Your task to perform on an android device: Go to Reddit.com Image 0: 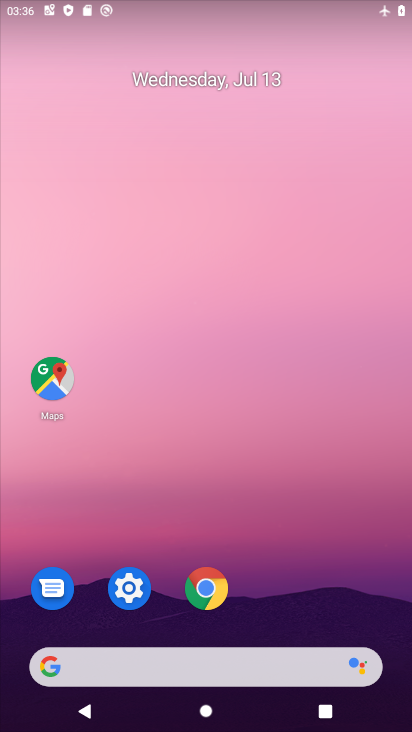
Step 0: drag from (274, 648) to (243, 230)
Your task to perform on an android device: Go to Reddit.com Image 1: 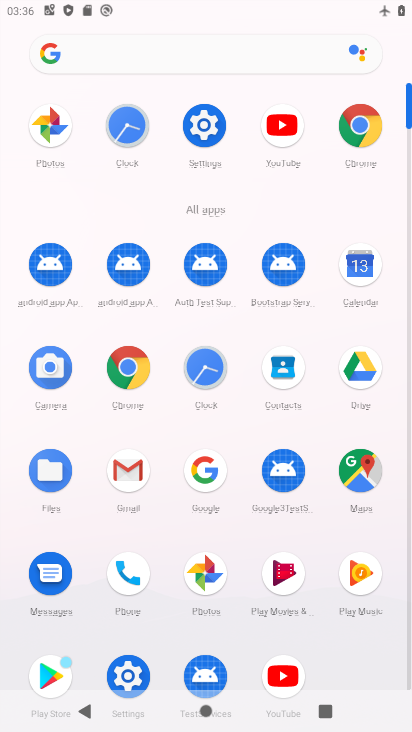
Step 1: click (360, 121)
Your task to perform on an android device: Go to Reddit.com Image 2: 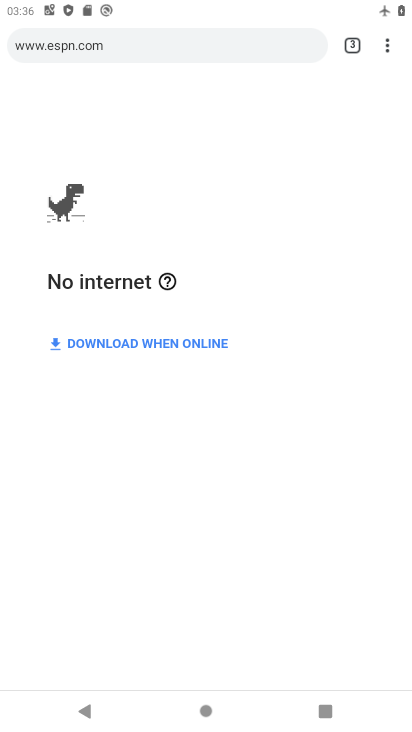
Step 2: press back button
Your task to perform on an android device: Go to Reddit.com Image 3: 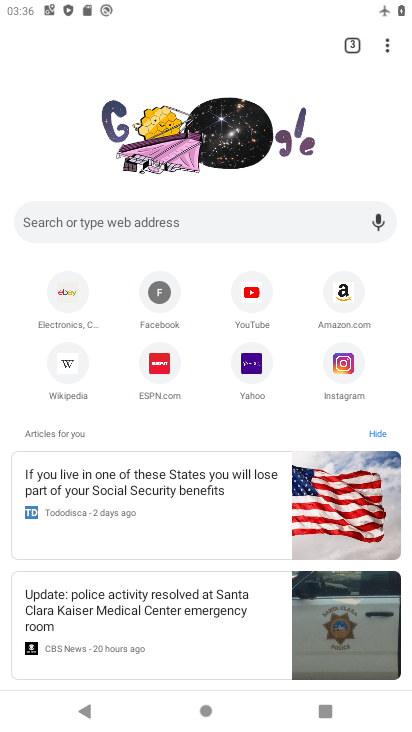
Step 3: press home button
Your task to perform on an android device: Go to Reddit.com Image 4: 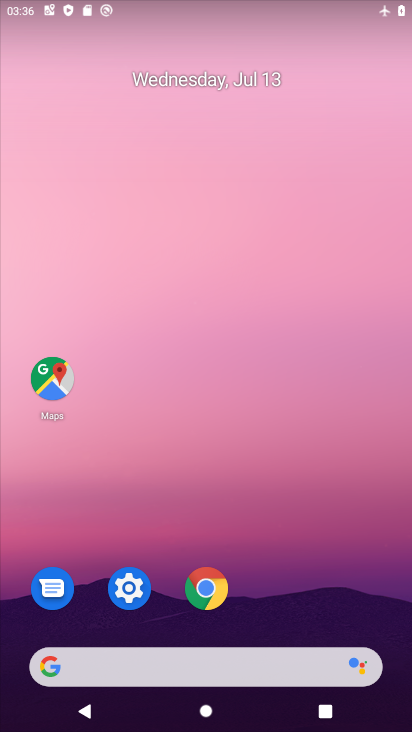
Step 4: drag from (265, 664) to (241, 177)
Your task to perform on an android device: Go to Reddit.com Image 5: 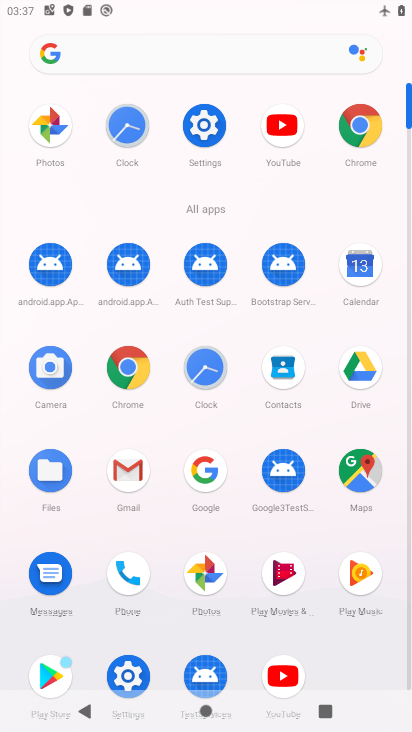
Step 5: click (211, 128)
Your task to perform on an android device: Go to Reddit.com Image 6: 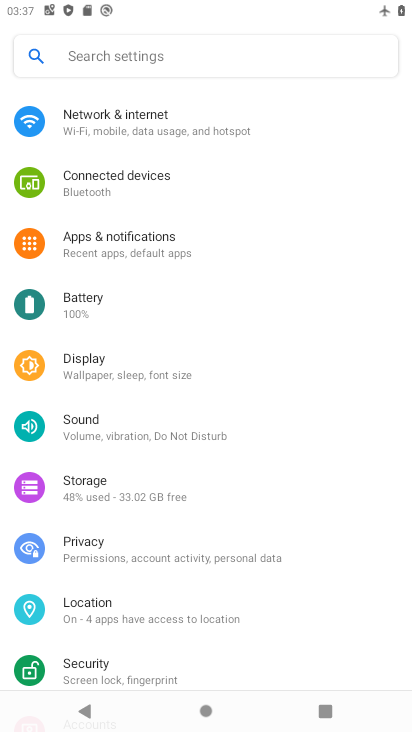
Step 6: click (122, 131)
Your task to perform on an android device: Go to Reddit.com Image 7: 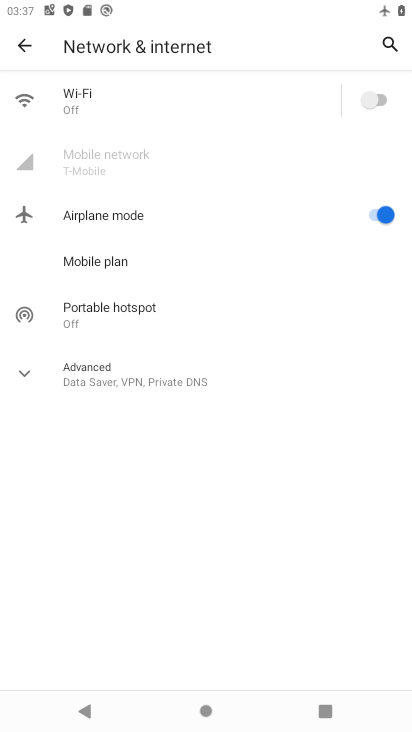
Step 7: click (383, 92)
Your task to perform on an android device: Go to Reddit.com Image 8: 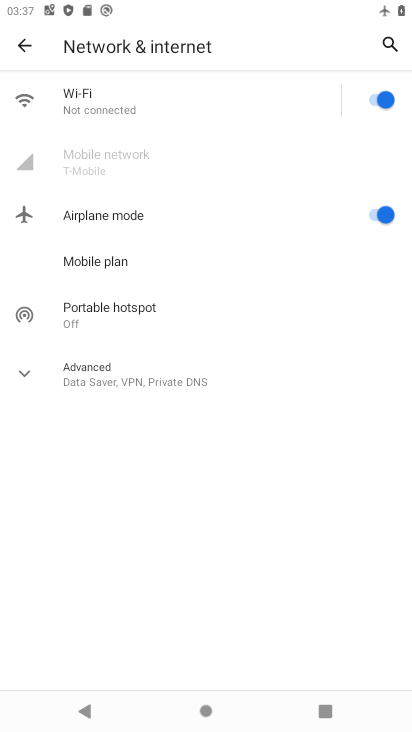
Step 8: click (371, 217)
Your task to perform on an android device: Go to Reddit.com Image 9: 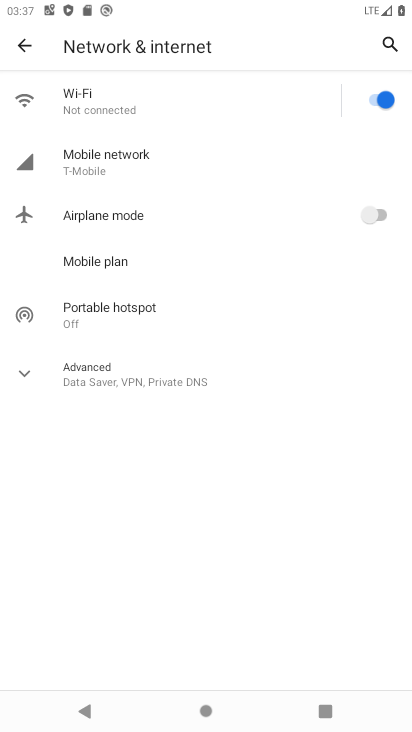
Step 9: click (15, 42)
Your task to perform on an android device: Go to Reddit.com Image 10: 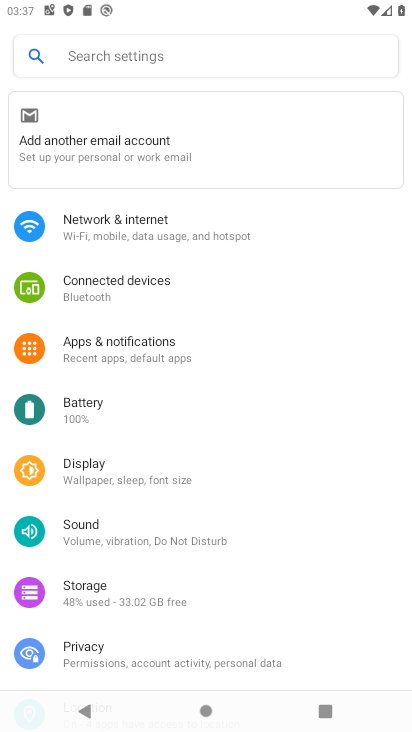
Step 10: press back button
Your task to perform on an android device: Go to Reddit.com Image 11: 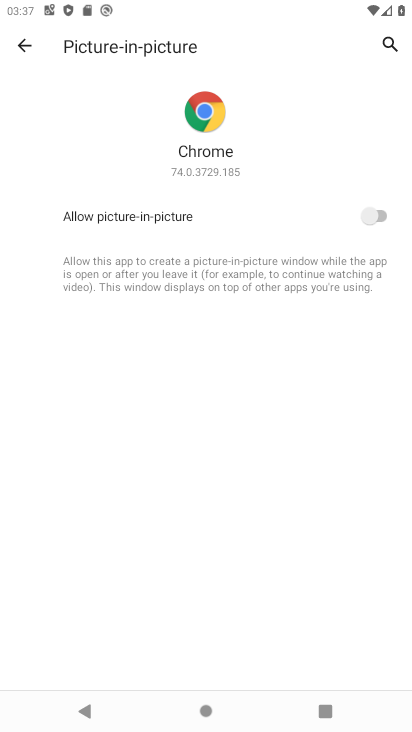
Step 11: click (21, 45)
Your task to perform on an android device: Go to Reddit.com Image 12: 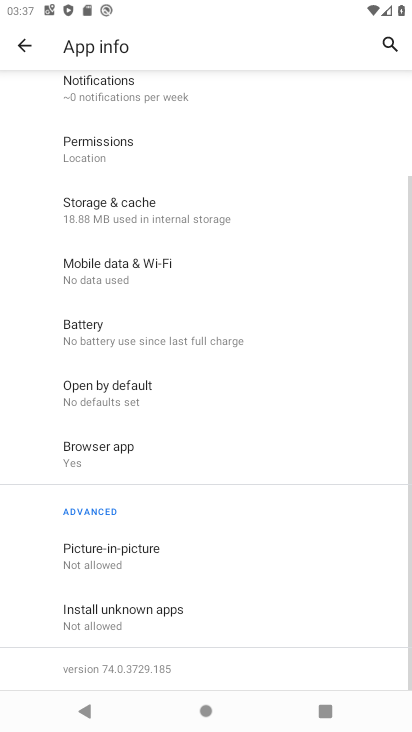
Step 12: click (26, 40)
Your task to perform on an android device: Go to Reddit.com Image 13: 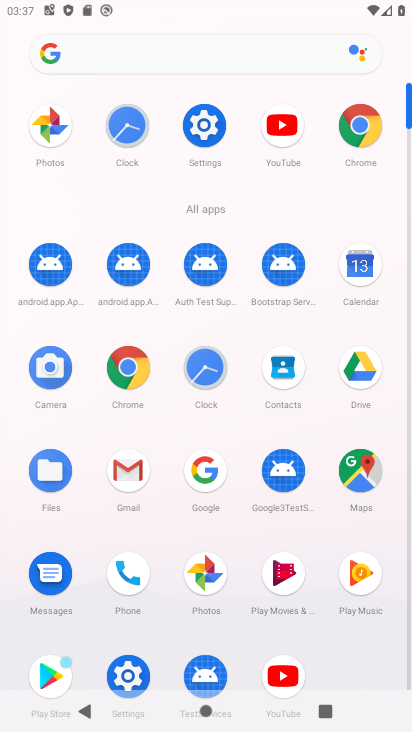
Step 13: click (367, 127)
Your task to perform on an android device: Go to Reddit.com Image 14: 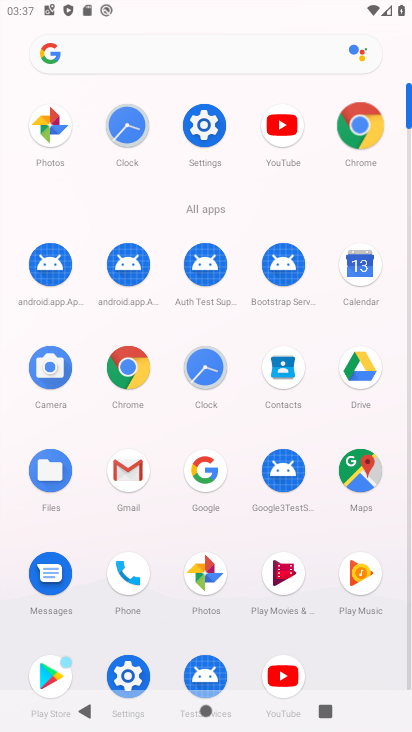
Step 14: click (367, 127)
Your task to perform on an android device: Go to Reddit.com Image 15: 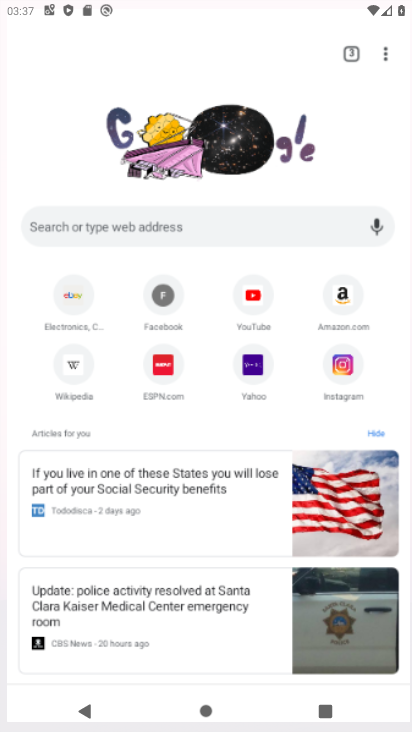
Step 15: click (364, 128)
Your task to perform on an android device: Go to Reddit.com Image 16: 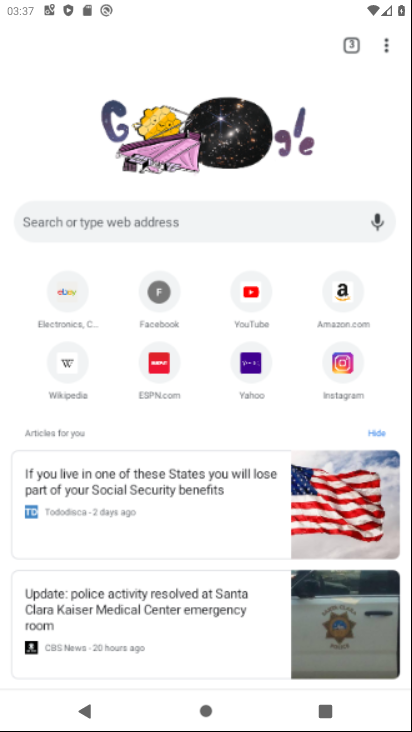
Step 16: click (364, 128)
Your task to perform on an android device: Go to Reddit.com Image 17: 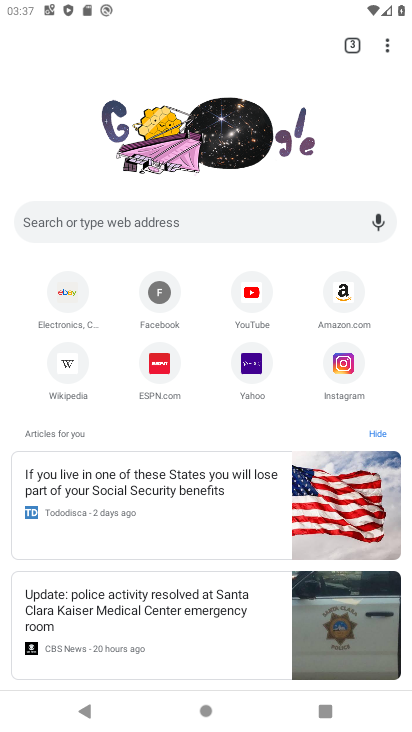
Step 17: click (62, 217)
Your task to perform on an android device: Go to Reddit.com Image 18: 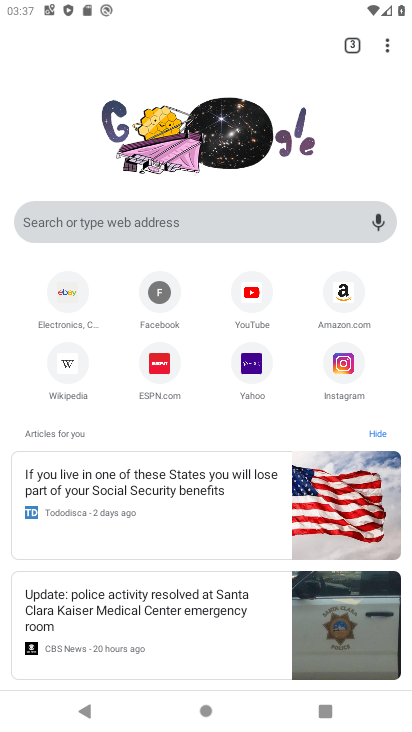
Step 18: click (62, 217)
Your task to perform on an android device: Go to Reddit.com Image 19: 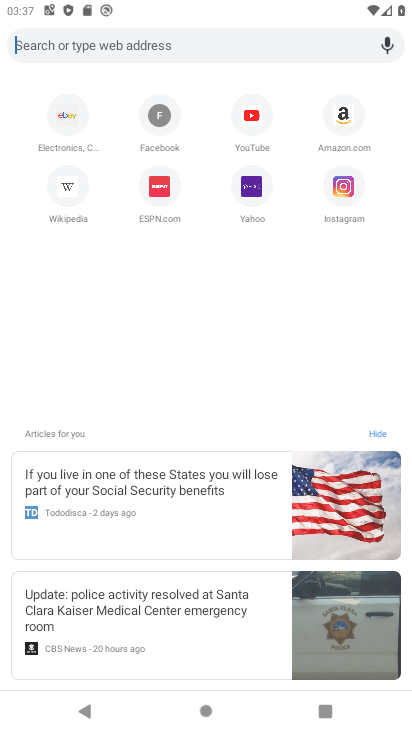
Step 19: click (62, 222)
Your task to perform on an android device: Go to Reddit.com Image 20: 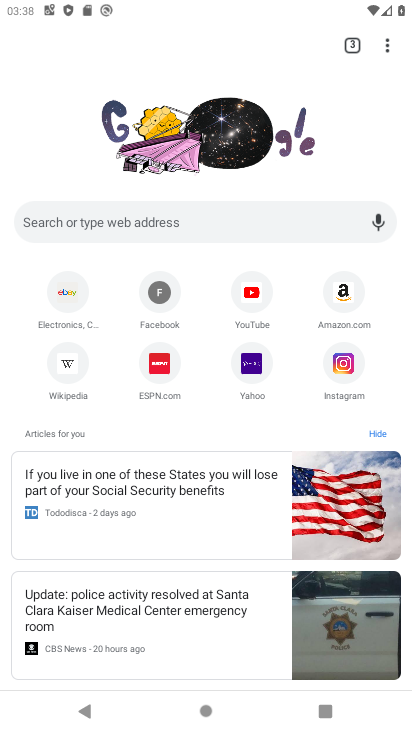
Step 20: type "reddit.com"
Your task to perform on an android device: Go to Reddit.com Image 21: 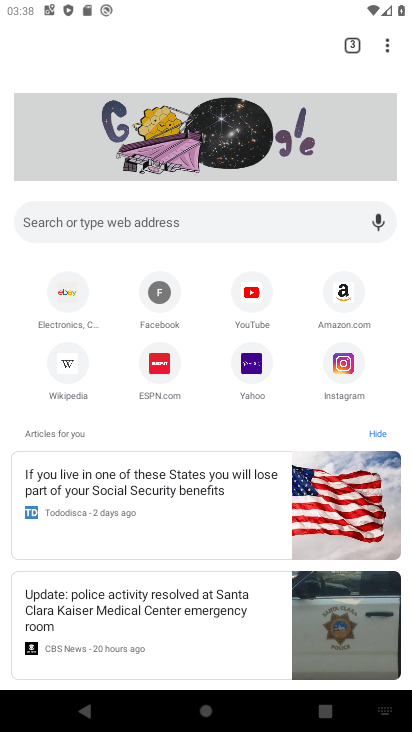
Step 21: click (62, 215)
Your task to perform on an android device: Go to Reddit.com Image 22: 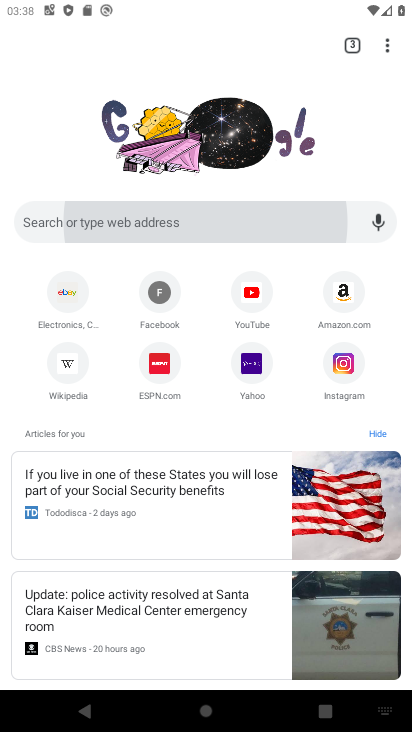
Step 22: click (65, 217)
Your task to perform on an android device: Go to Reddit.com Image 23: 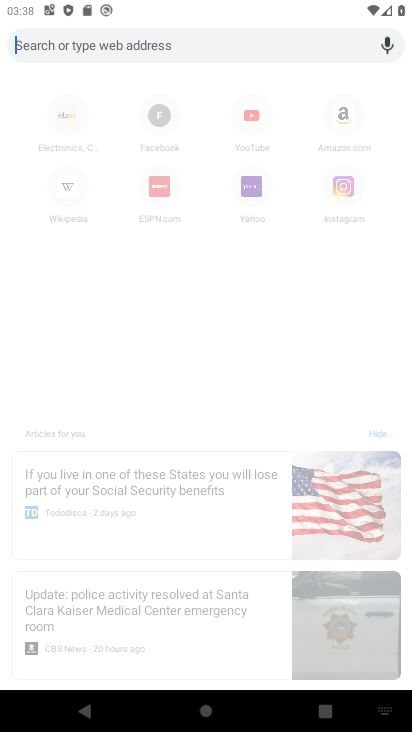
Step 23: type "reddit.com"
Your task to perform on an android device: Go to Reddit.com Image 24: 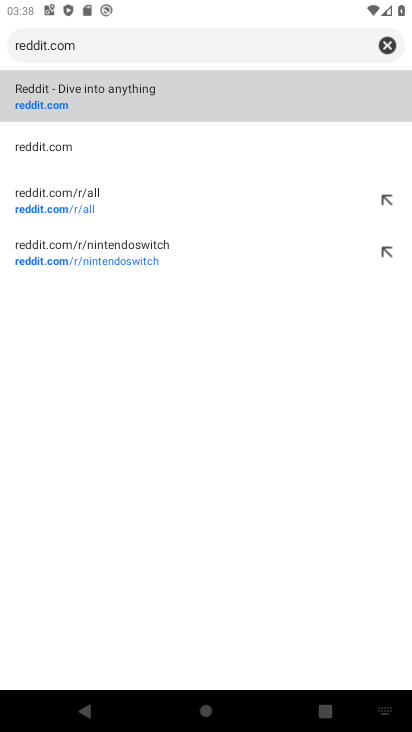
Step 24: click (43, 209)
Your task to perform on an android device: Go to Reddit.com Image 25: 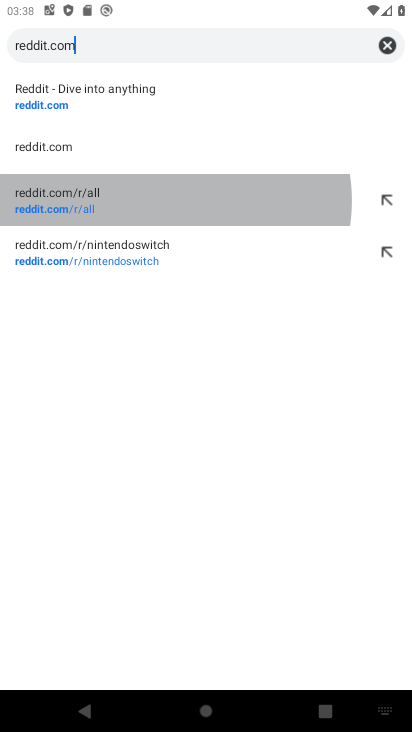
Step 25: click (44, 210)
Your task to perform on an android device: Go to Reddit.com Image 26: 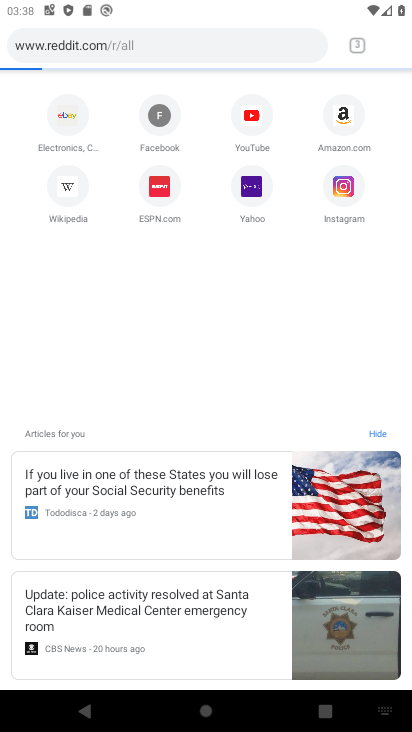
Step 26: click (44, 210)
Your task to perform on an android device: Go to Reddit.com Image 27: 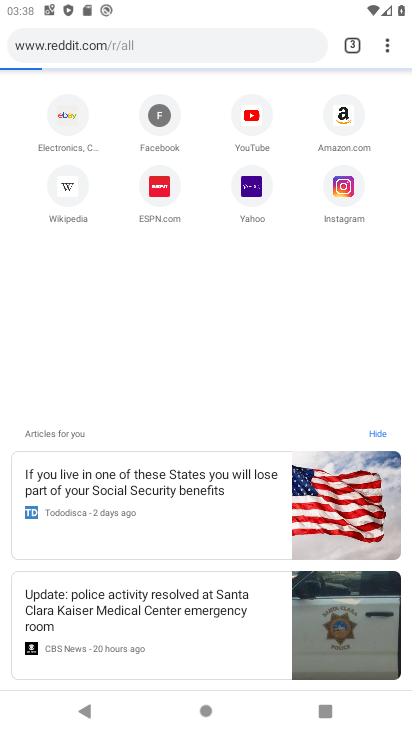
Step 27: click (44, 210)
Your task to perform on an android device: Go to Reddit.com Image 28: 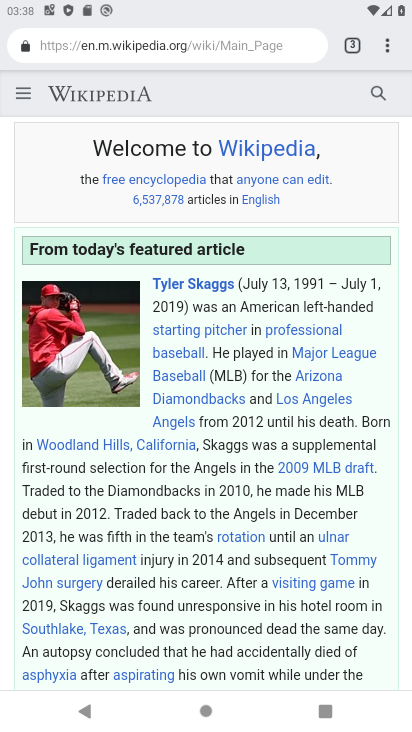
Step 28: task complete